Your task to perform on an android device: open app "Expedia: Hotels, Flights & Car" (install if not already installed), go to login, and select forgot password Image 0: 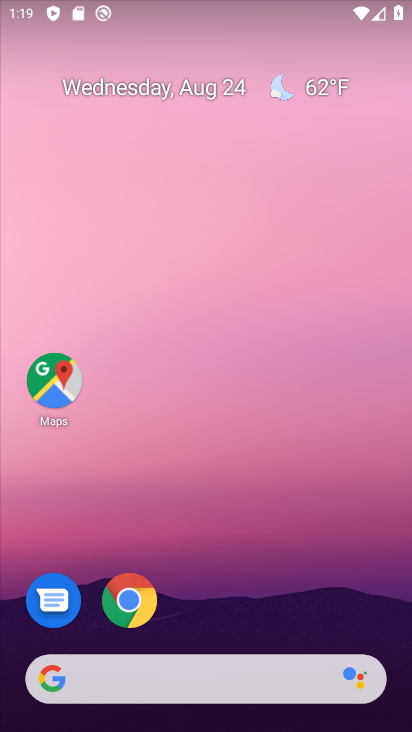
Step 0: drag from (221, 646) to (234, 174)
Your task to perform on an android device: open app "Expedia: Hotels, Flights & Car" (install if not already installed), go to login, and select forgot password Image 1: 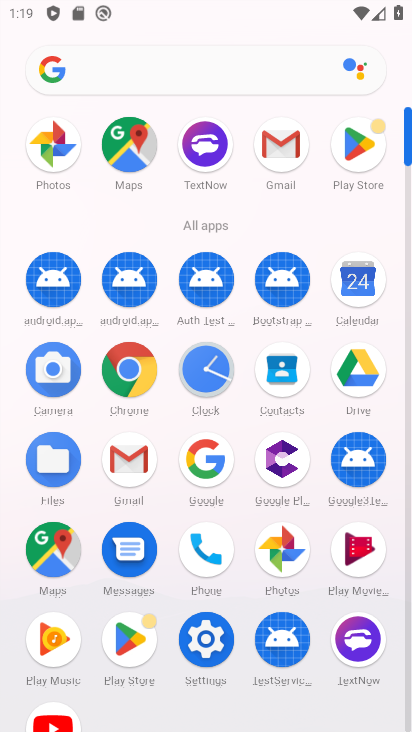
Step 1: click (357, 143)
Your task to perform on an android device: open app "Expedia: Hotels, Flights & Car" (install if not already installed), go to login, and select forgot password Image 2: 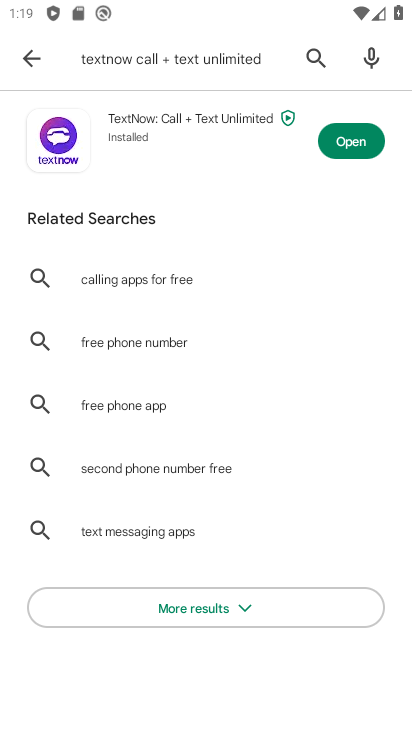
Step 2: click (315, 56)
Your task to perform on an android device: open app "Expedia: Hotels, Flights & Car" (install if not already installed), go to login, and select forgot password Image 3: 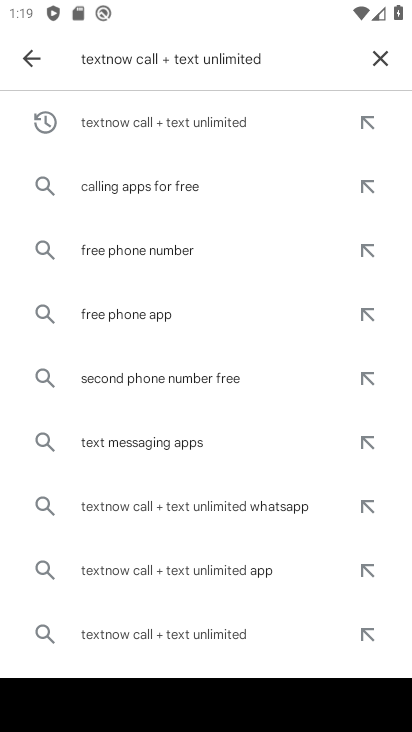
Step 3: click (380, 56)
Your task to perform on an android device: open app "Expedia: Hotels, Flights & Car" (install if not already installed), go to login, and select forgot password Image 4: 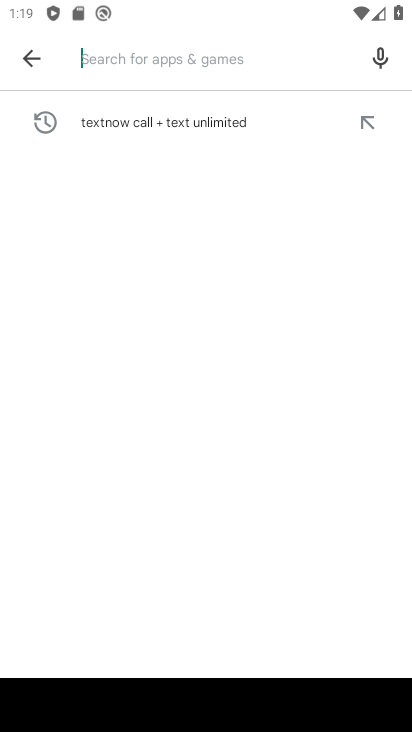
Step 4: type "Expedia: Hotels, Flights & Car"
Your task to perform on an android device: open app "Expedia: Hotels, Flights & Car" (install if not already installed), go to login, and select forgot password Image 5: 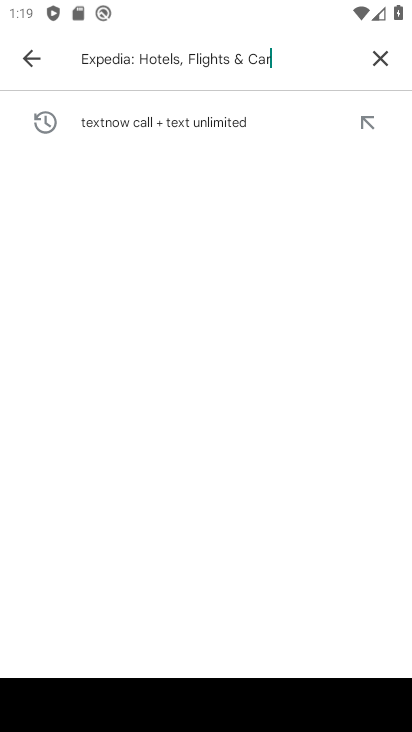
Step 5: type ""
Your task to perform on an android device: open app "Expedia: Hotels, Flights & Car" (install if not already installed), go to login, and select forgot password Image 6: 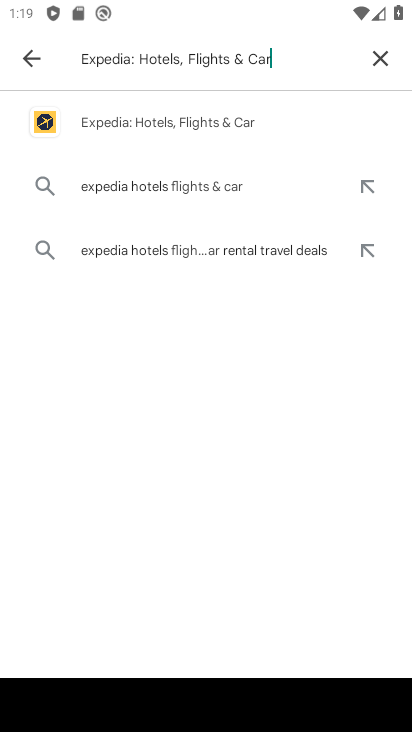
Step 6: click (144, 128)
Your task to perform on an android device: open app "Expedia: Hotels, Flights & Car" (install if not already installed), go to login, and select forgot password Image 7: 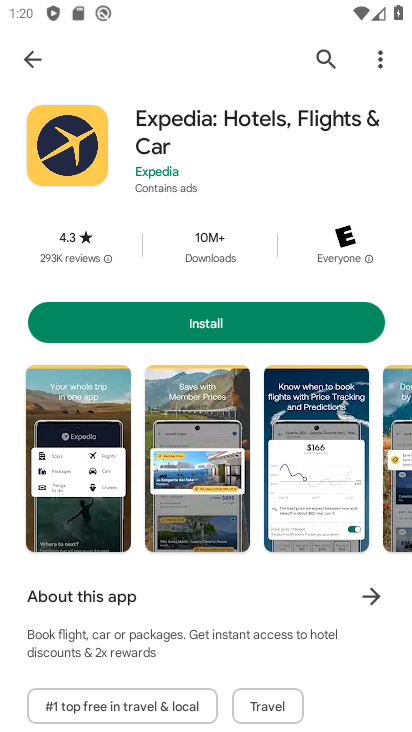
Step 7: click (196, 329)
Your task to perform on an android device: open app "Expedia: Hotels, Flights & Car" (install if not already installed), go to login, and select forgot password Image 8: 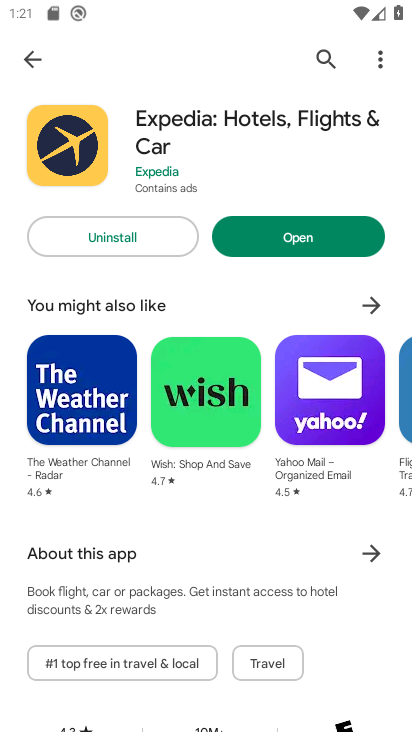
Step 8: click (303, 239)
Your task to perform on an android device: open app "Expedia: Hotels, Flights & Car" (install if not already installed), go to login, and select forgot password Image 9: 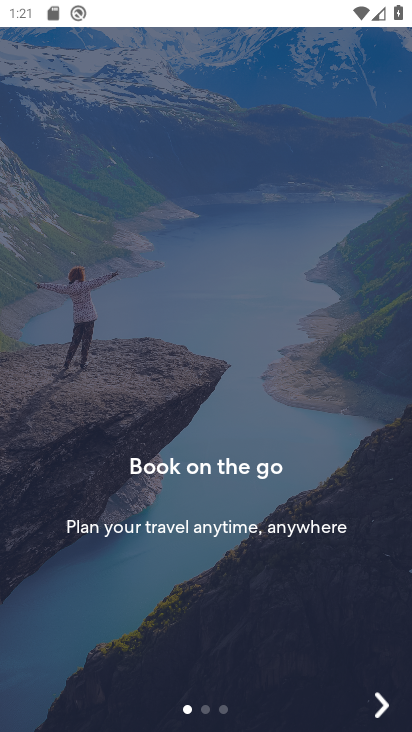
Step 9: click (369, 705)
Your task to perform on an android device: open app "Expedia: Hotels, Flights & Car" (install if not already installed), go to login, and select forgot password Image 10: 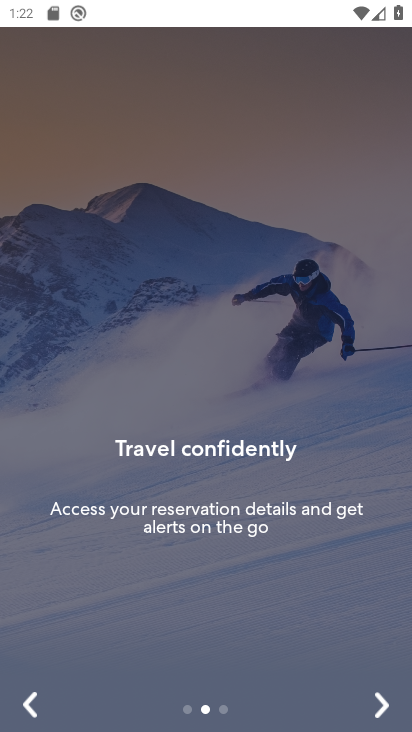
Step 10: click (378, 706)
Your task to perform on an android device: open app "Expedia: Hotels, Flights & Car" (install if not already installed), go to login, and select forgot password Image 11: 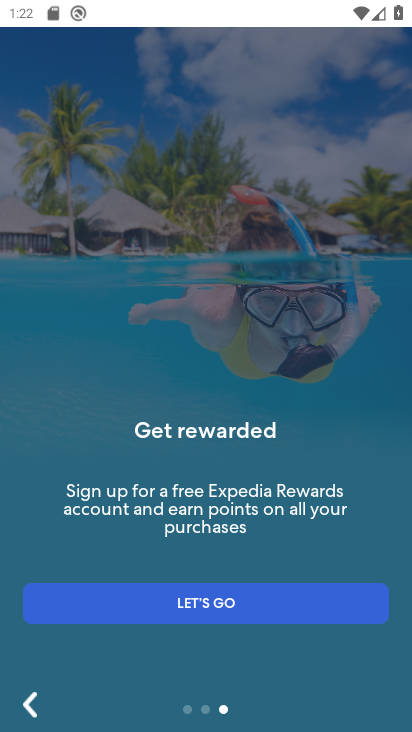
Step 11: click (209, 600)
Your task to perform on an android device: open app "Expedia: Hotels, Flights & Car" (install if not already installed), go to login, and select forgot password Image 12: 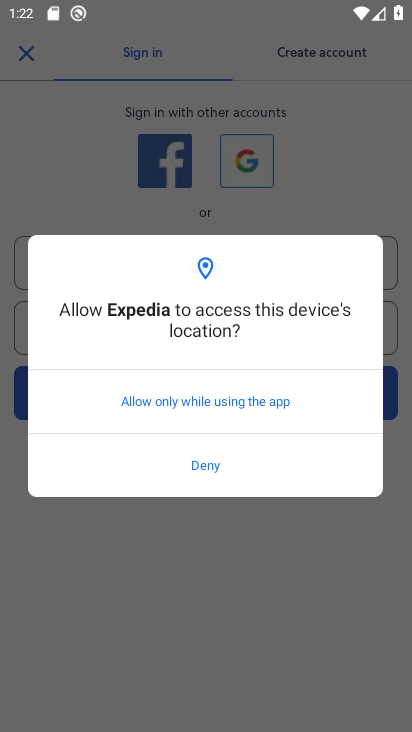
Step 12: click (208, 409)
Your task to perform on an android device: open app "Expedia: Hotels, Flights & Car" (install if not already installed), go to login, and select forgot password Image 13: 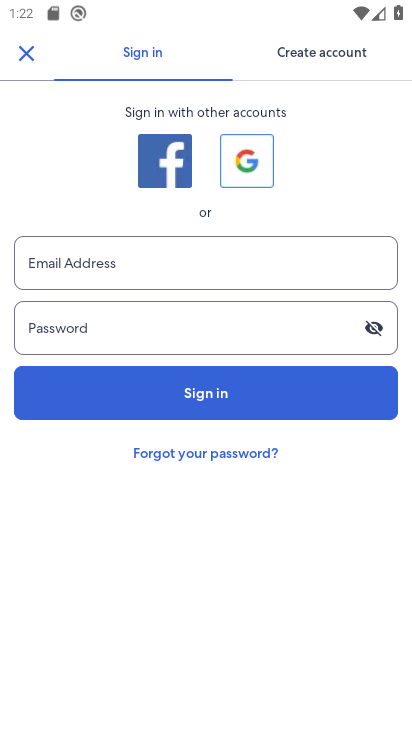
Step 13: click (251, 158)
Your task to perform on an android device: open app "Expedia: Hotels, Flights & Car" (install if not already installed), go to login, and select forgot password Image 14: 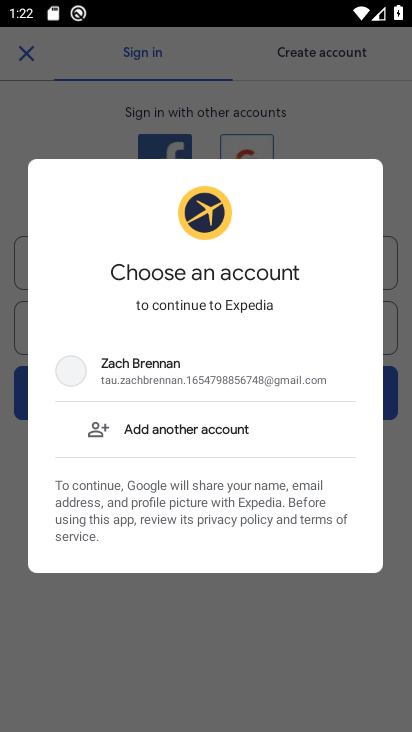
Step 14: click (154, 371)
Your task to perform on an android device: open app "Expedia: Hotels, Flights & Car" (install if not already installed), go to login, and select forgot password Image 15: 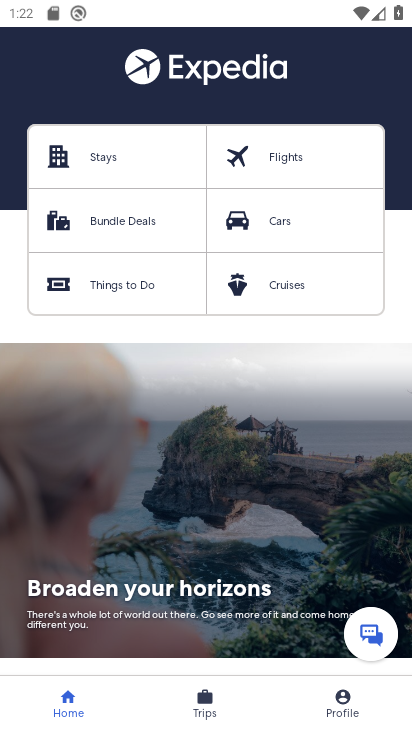
Step 15: task complete